Your task to perform on an android device: Go to eBay Image 0: 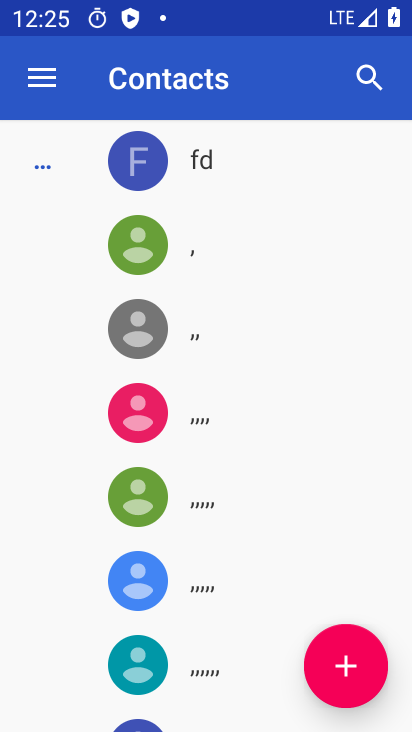
Step 0: press home button
Your task to perform on an android device: Go to eBay Image 1: 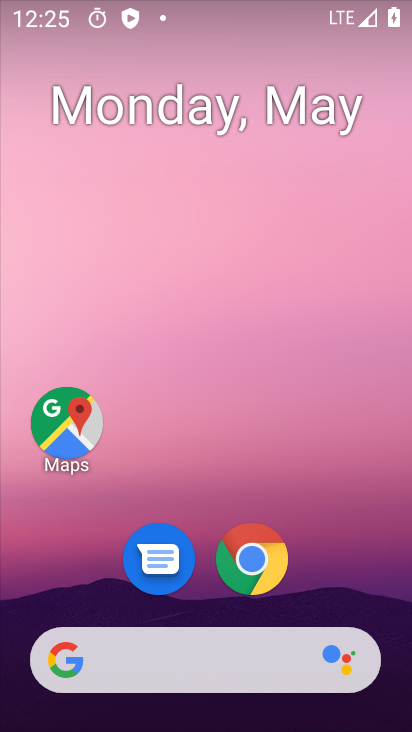
Step 1: drag from (259, 581) to (215, 0)
Your task to perform on an android device: Go to eBay Image 2: 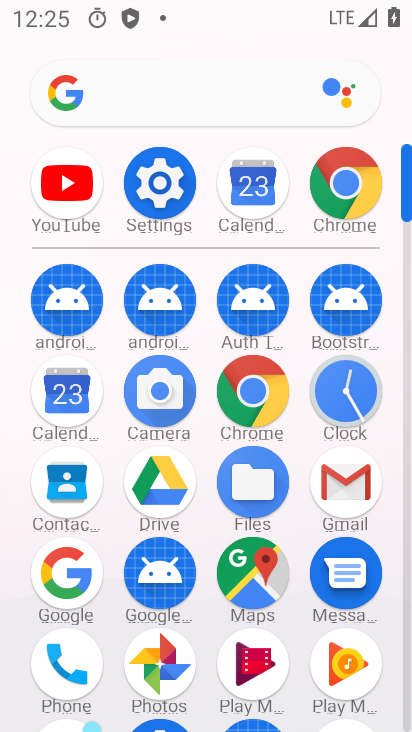
Step 2: click (231, 395)
Your task to perform on an android device: Go to eBay Image 3: 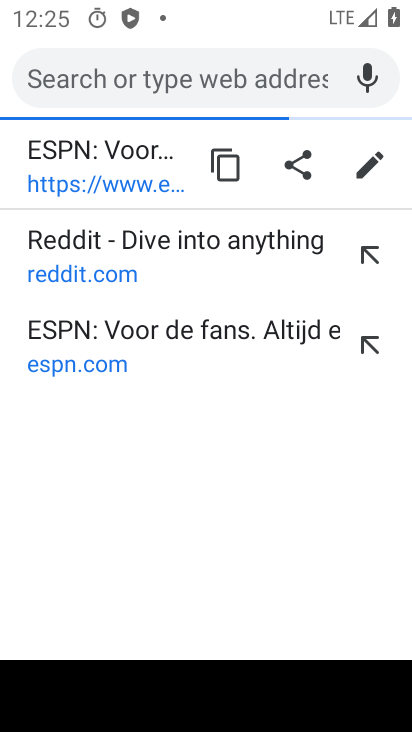
Step 3: type ""
Your task to perform on an android device: Go to eBay Image 4: 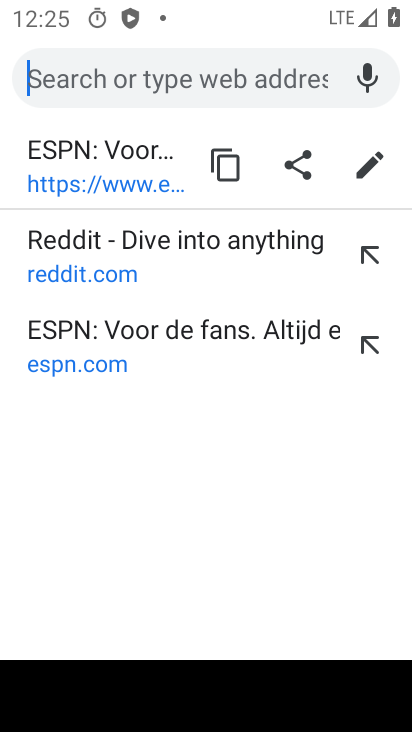
Step 4: type "ebay"
Your task to perform on an android device: Go to eBay Image 5: 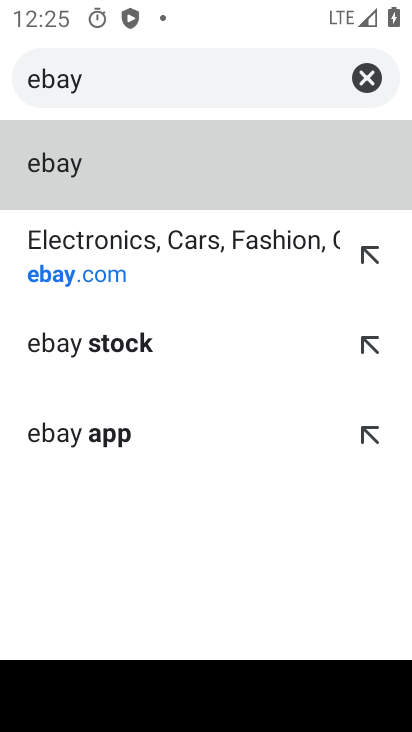
Step 5: click (82, 245)
Your task to perform on an android device: Go to eBay Image 6: 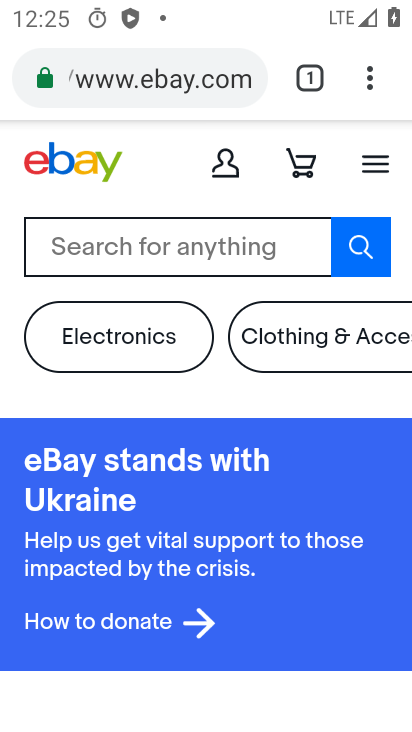
Step 6: task complete